Your task to perform on an android device: add a contact in the contacts app Image 0: 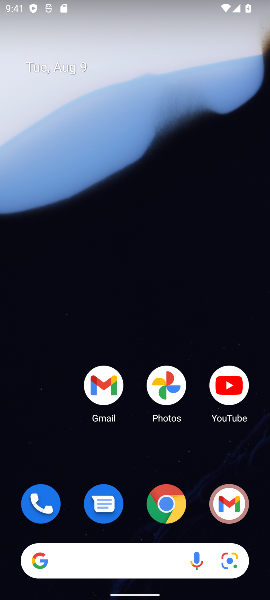
Step 0: drag from (266, 545) to (230, 80)
Your task to perform on an android device: add a contact in the contacts app Image 1: 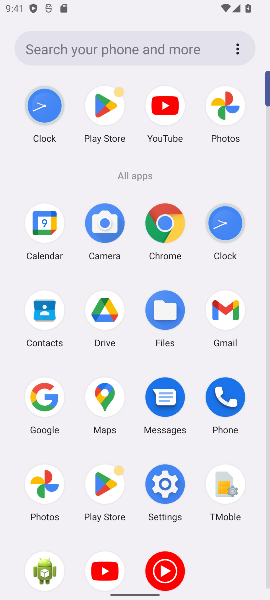
Step 1: click (44, 316)
Your task to perform on an android device: add a contact in the contacts app Image 2: 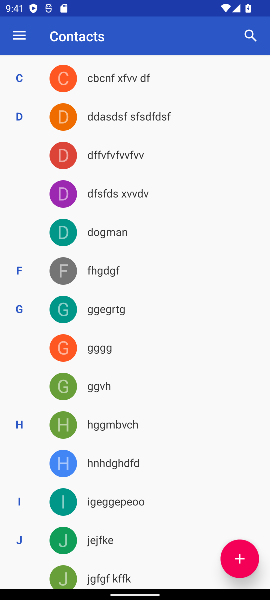
Step 2: click (238, 561)
Your task to perform on an android device: add a contact in the contacts app Image 3: 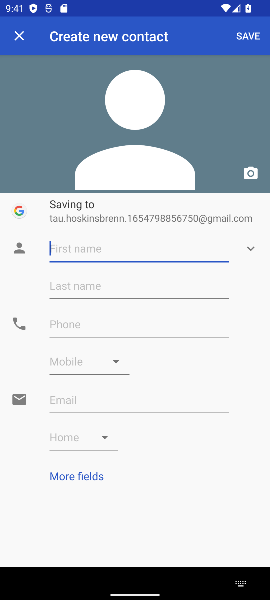
Step 3: type "chbhbhjbhvbh"
Your task to perform on an android device: add a contact in the contacts app Image 4: 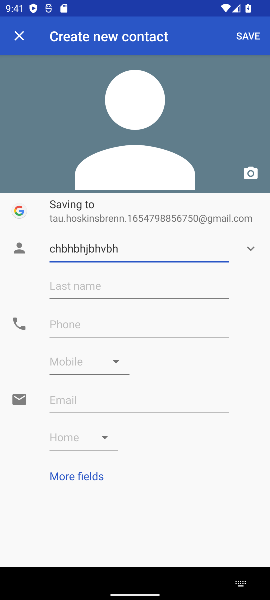
Step 4: click (79, 285)
Your task to perform on an android device: add a contact in the contacts app Image 5: 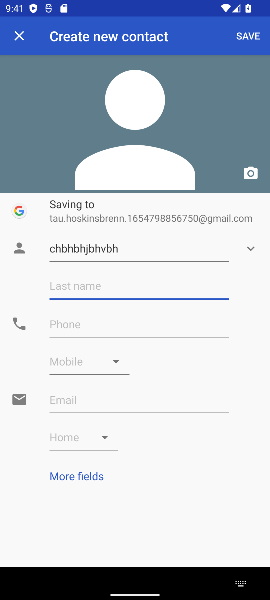
Step 5: type "jchvbhbvgbfvbv"
Your task to perform on an android device: add a contact in the contacts app Image 6: 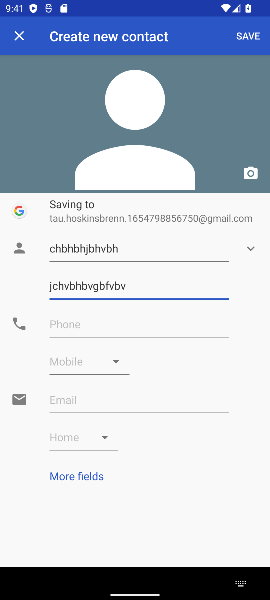
Step 6: click (72, 321)
Your task to perform on an android device: add a contact in the contacts app Image 7: 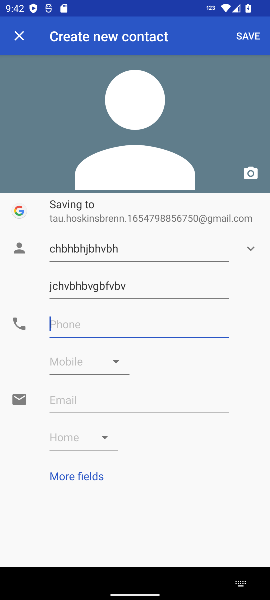
Step 7: type "6572574742765775"
Your task to perform on an android device: add a contact in the contacts app Image 8: 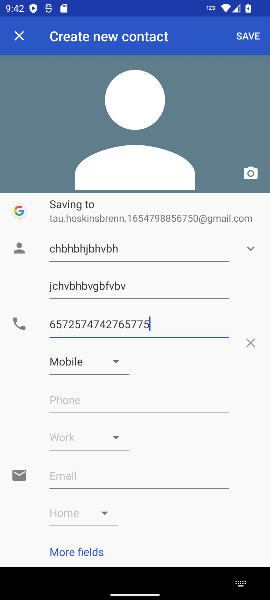
Step 8: click (239, 34)
Your task to perform on an android device: add a contact in the contacts app Image 9: 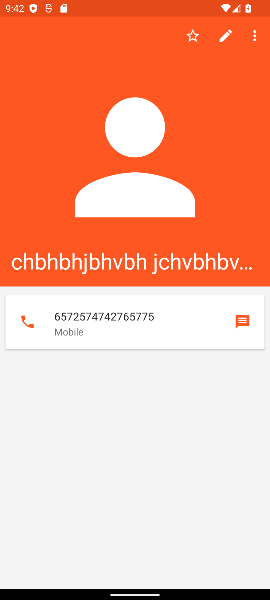
Step 9: task complete